Your task to perform on an android device: Open Google Maps Image 0: 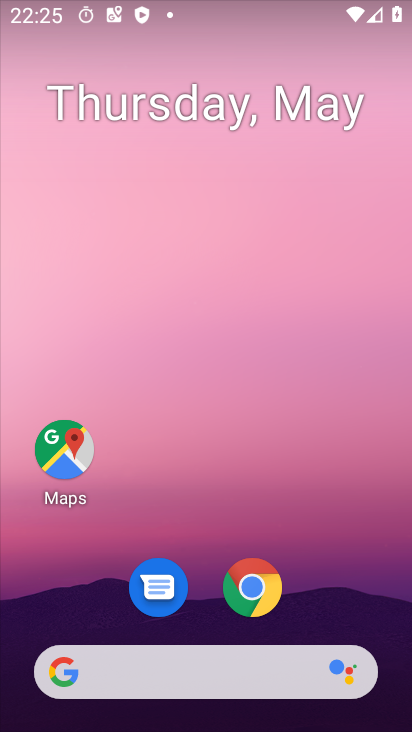
Step 0: click (62, 448)
Your task to perform on an android device: Open Google Maps Image 1: 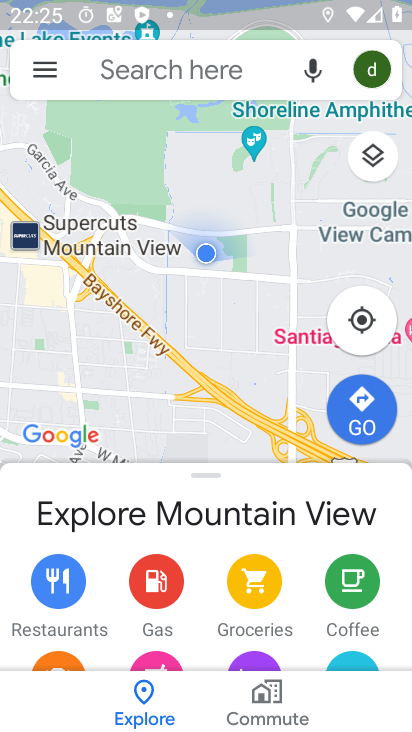
Step 1: task complete